Your task to perform on an android device: open chrome privacy settings Image 0: 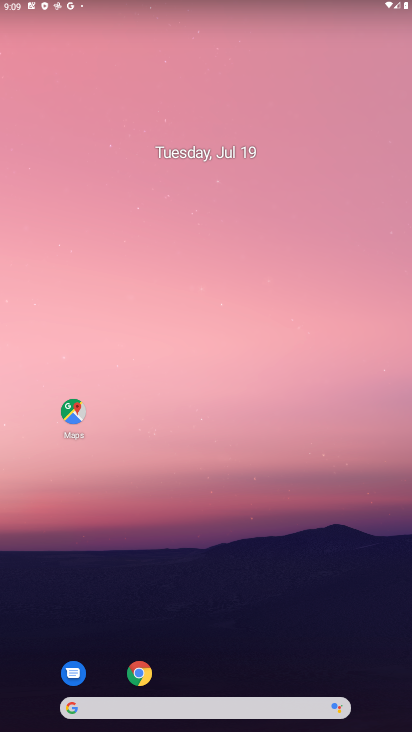
Step 0: click (142, 663)
Your task to perform on an android device: open chrome privacy settings Image 1: 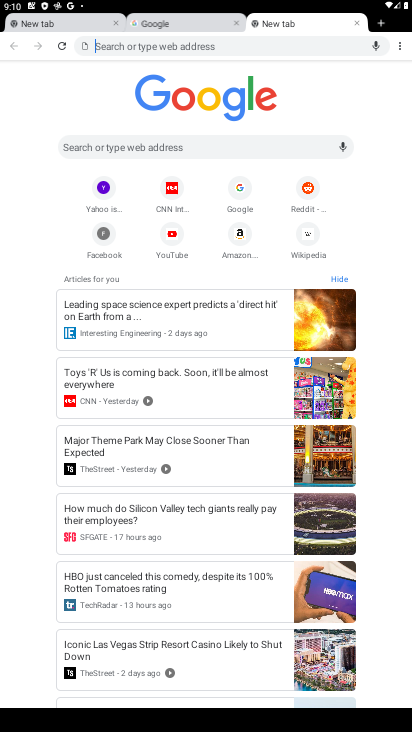
Step 1: click (400, 51)
Your task to perform on an android device: open chrome privacy settings Image 2: 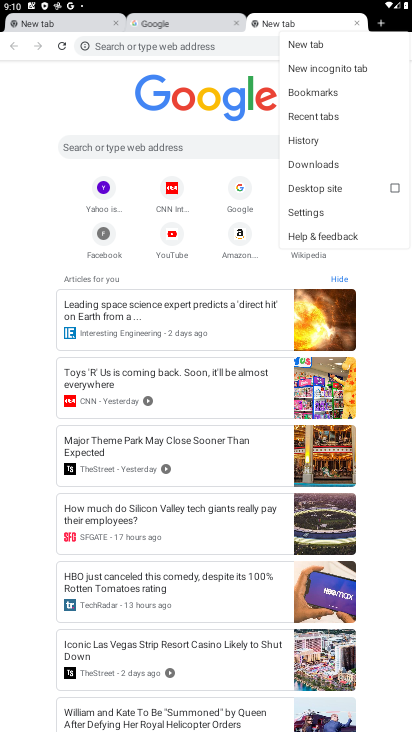
Step 2: click (326, 216)
Your task to perform on an android device: open chrome privacy settings Image 3: 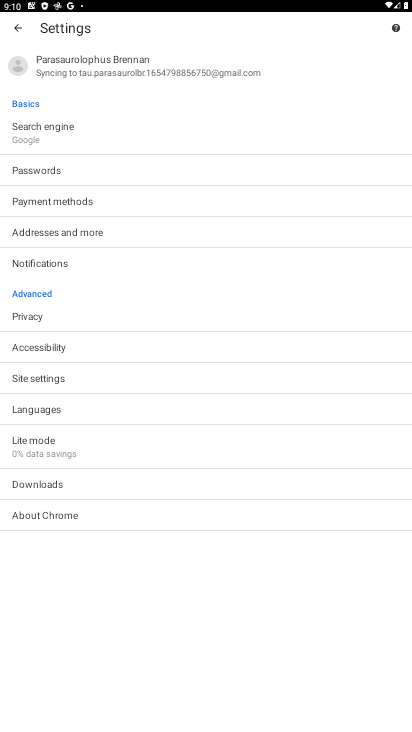
Step 3: click (78, 320)
Your task to perform on an android device: open chrome privacy settings Image 4: 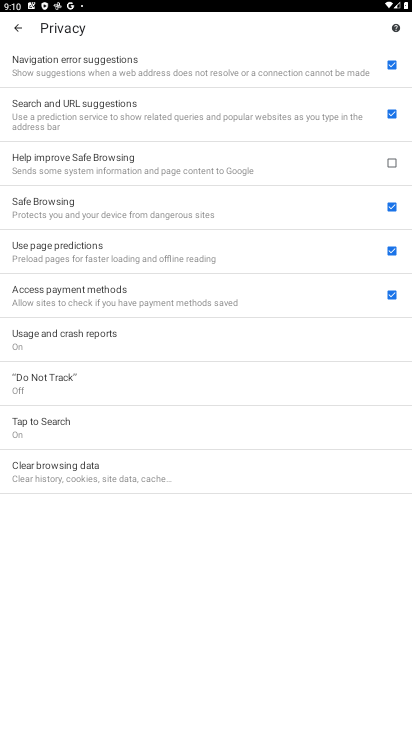
Step 4: task complete